Your task to perform on an android device: What's the weather going to be this weekend? Image 0: 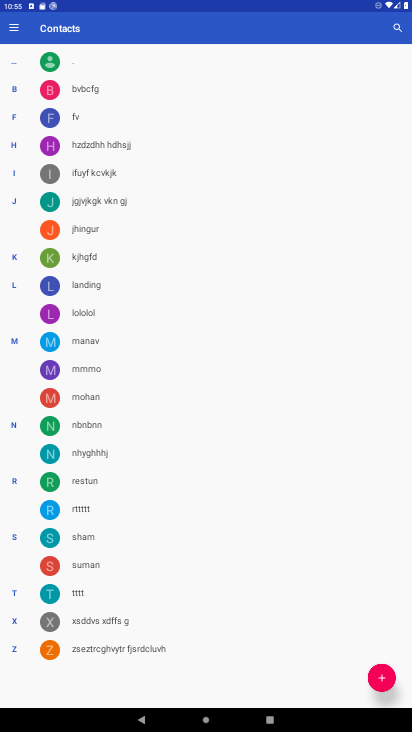
Step 0: press home button
Your task to perform on an android device: What's the weather going to be this weekend? Image 1: 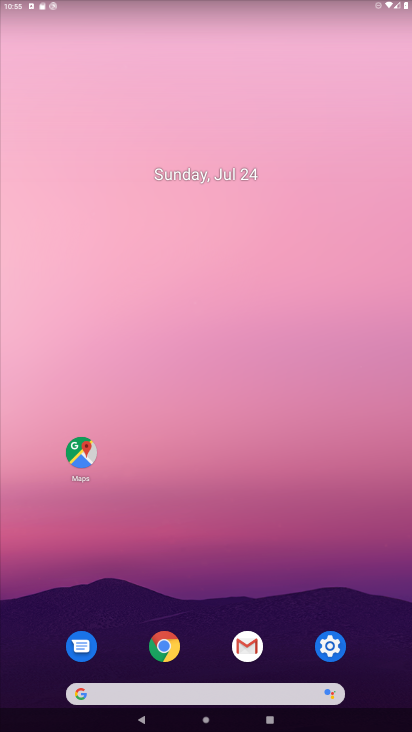
Step 1: click (228, 700)
Your task to perform on an android device: What's the weather going to be this weekend? Image 2: 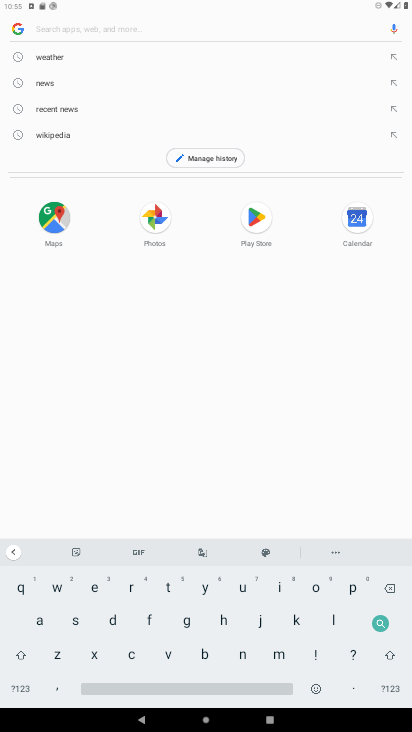
Step 2: click (43, 590)
Your task to perform on an android device: What's the weather going to be this weekend? Image 3: 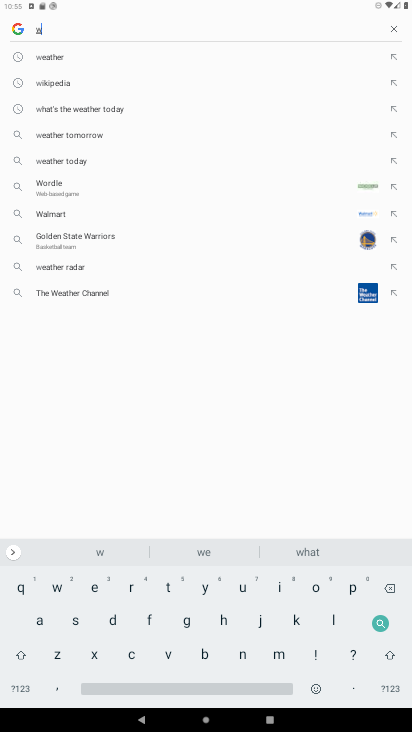
Step 3: click (219, 617)
Your task to perform on an android device: What's the weather going to be this weekend? Image 4: 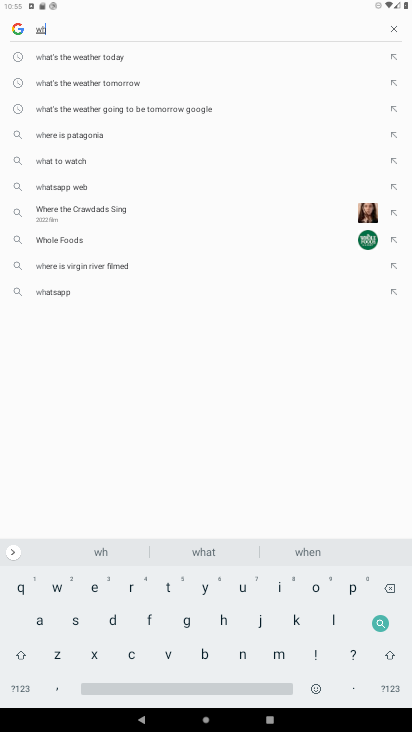
Step 4: click (38, 620)
Your task to perform on an android device: What's the weather going to be this weekend? Image 5: 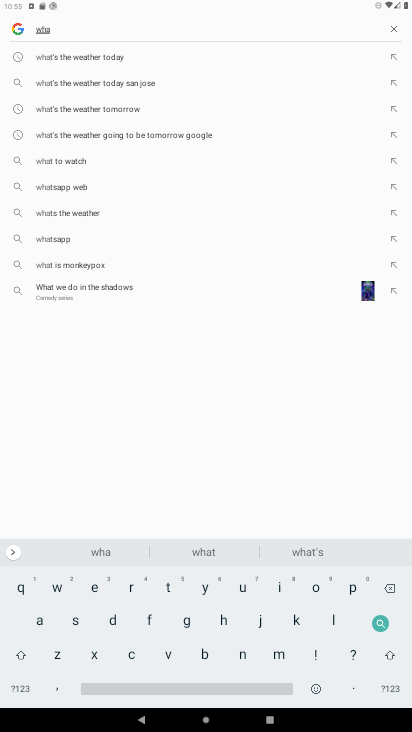
Step 5: click (302, 554)
Your task to perform on an android device: What's the weather going to be this weekend? Image 6: 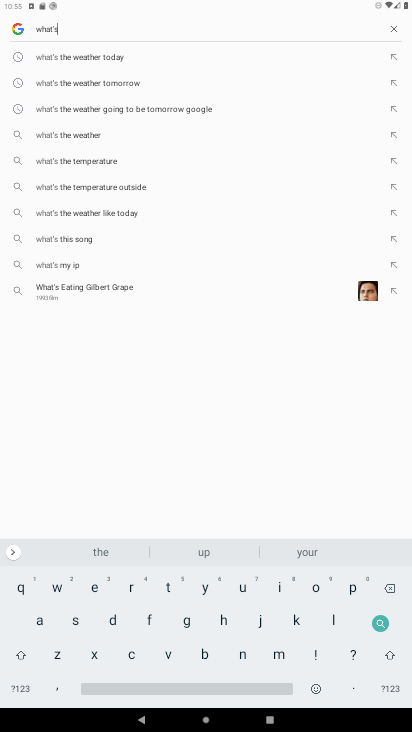
Step 6: click (101, 544)
Your task to perform on an android device: What's the weather going to be this weekend? Image 7: 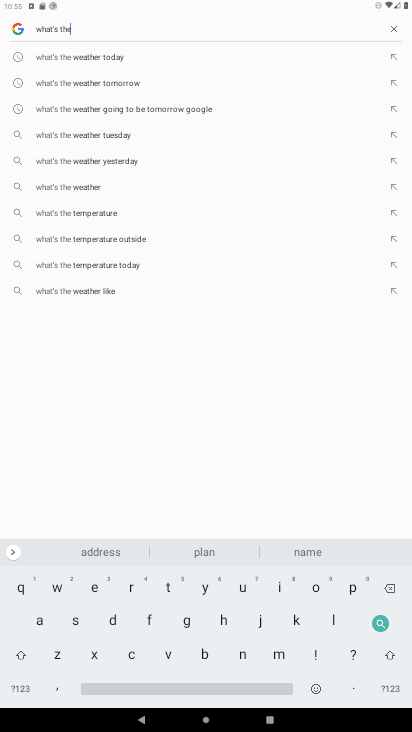
Step 7: click (53, 586)
Your task to perform on an android device: What's the weather going to be this weekend? Image 8: 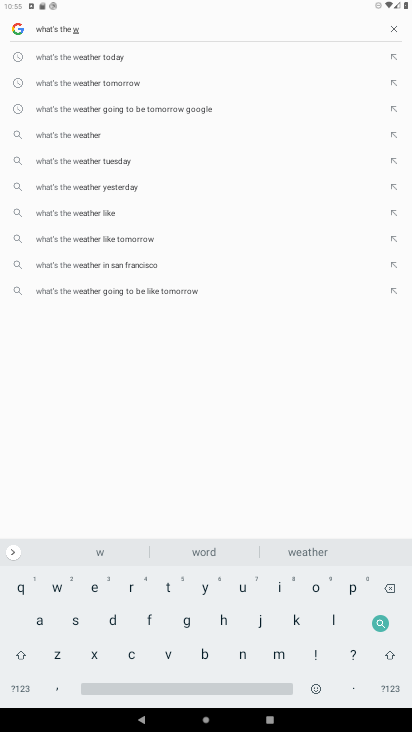
Step 8: click (296, 552)
Your task to perform on an android device: What's the weather going to be this weekend? Image 9: 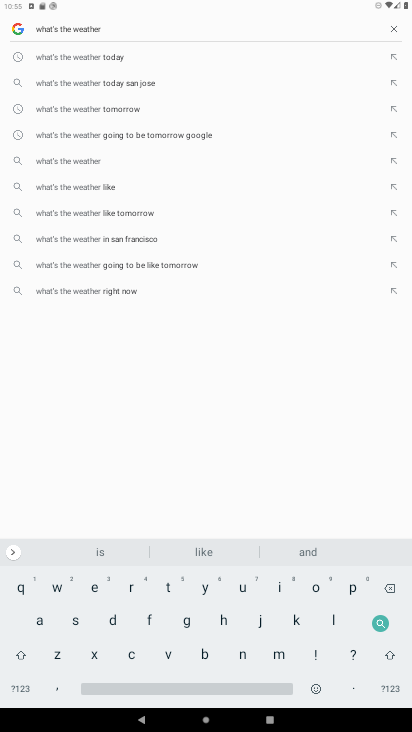
Step 9: click (188, 620)
Your task to perform on an android device: What's the weather going to be this weekend? Image 10: 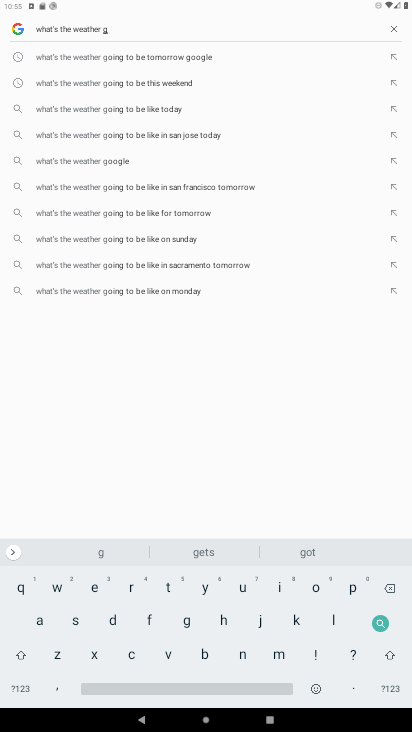
Step 10: click (128, 83)
Your task to perform on an android device: What's the weather going to be this weekend? Image 11: 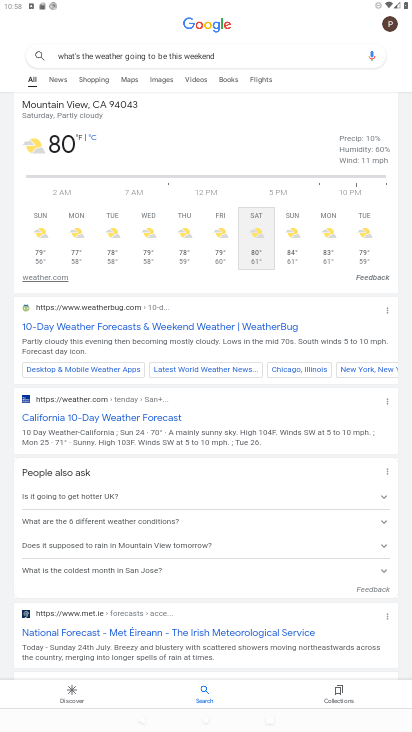
Step 11: task complete